Your task to perform on an android device: Clear all items from cart on costco. Add "macbook air" to the cart on costco Image 0: 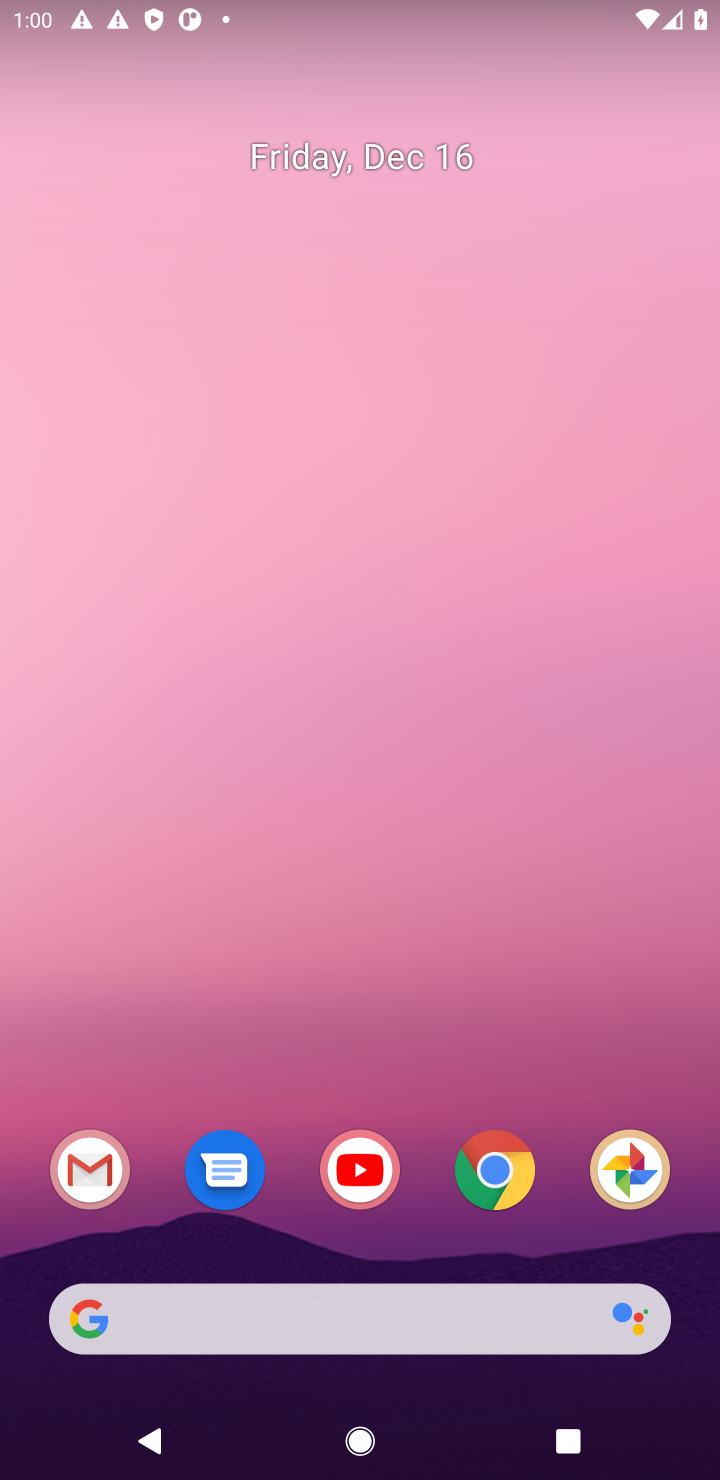
Step 0: click (510, 1173)
Your task to perform on an android device: Clear all items from cart on costco. Add "macbook air" to the cart on costco Image 1: 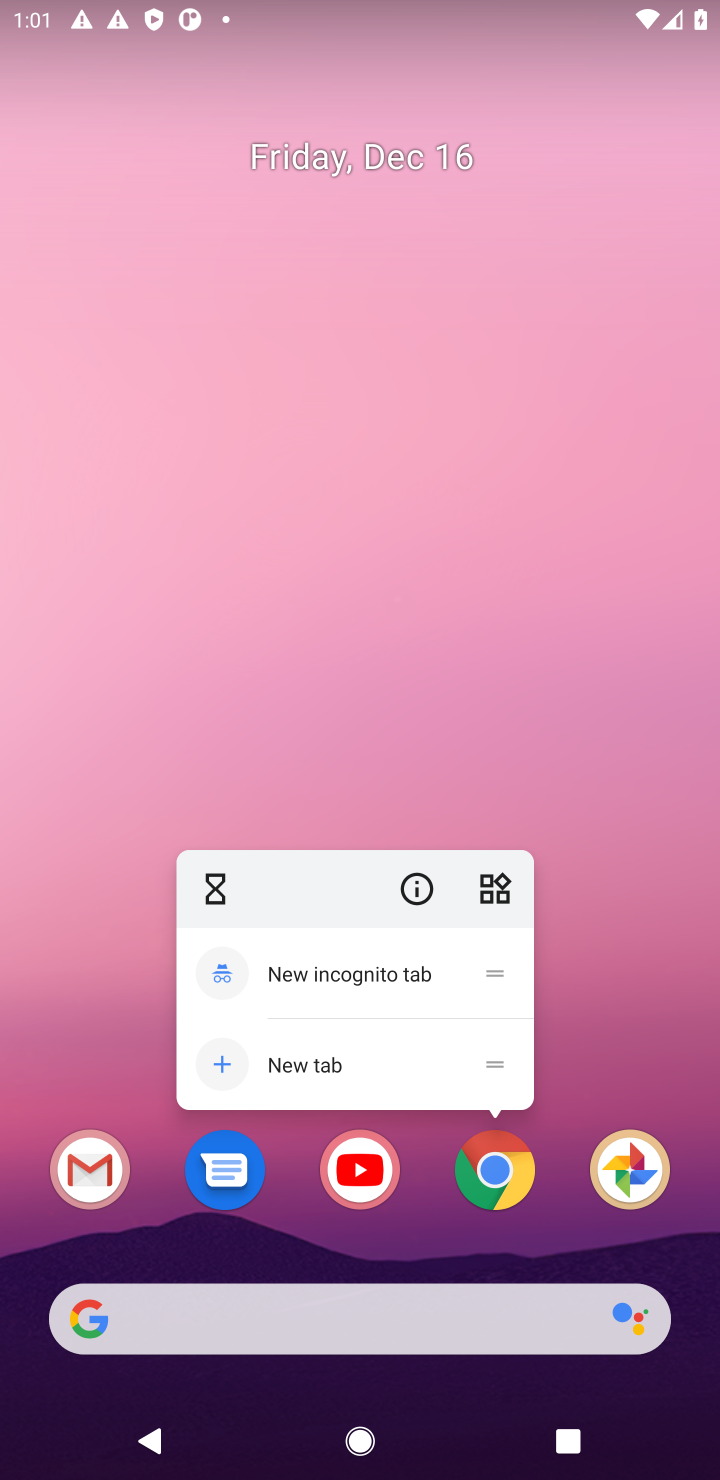
Step 1: click (502, 1177)
Your task to perform on an android device: Clear all items from cart on costco. Add "macbook air" to the cart on costco Image 2: 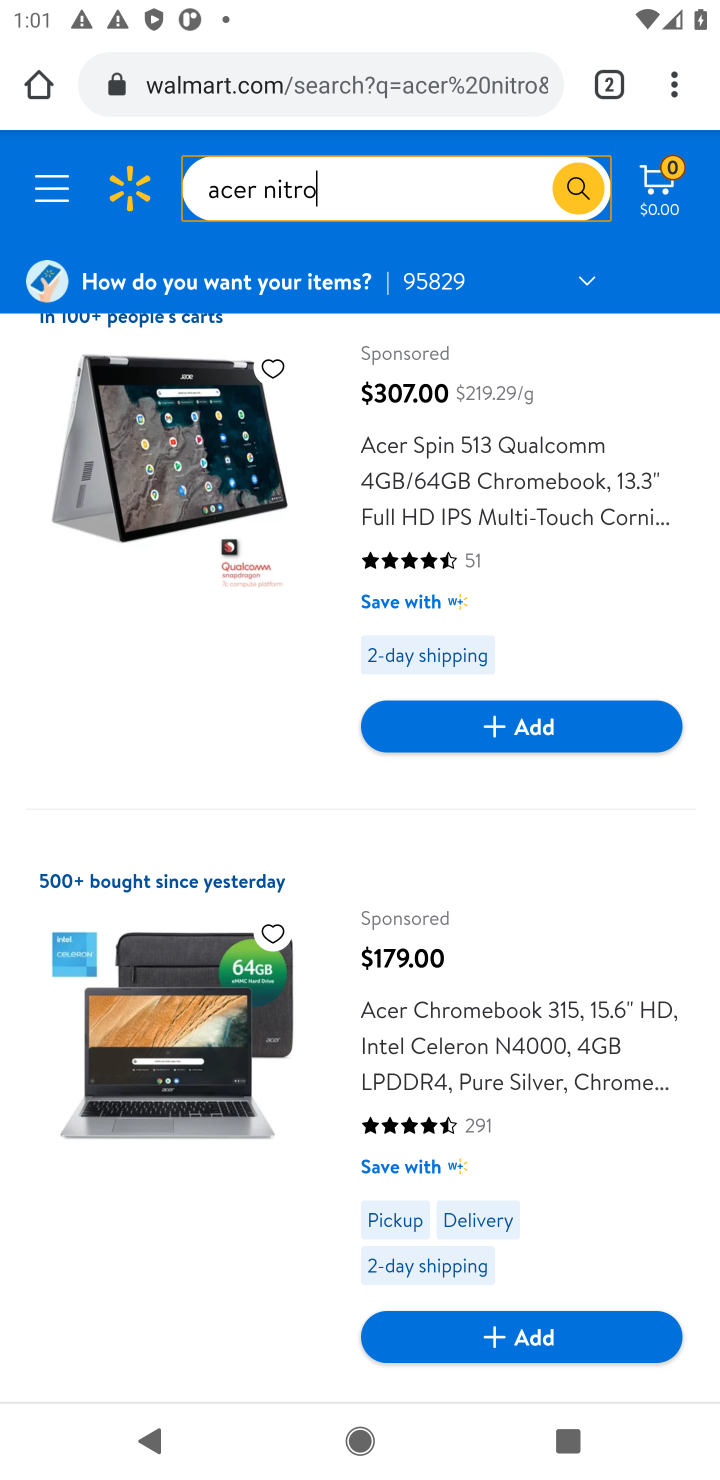
Step 2: click (263, 89)
Your task to perform on an android device: Clear all items from cart on costco. Add "macbook air" to the cart on costco Image 3: 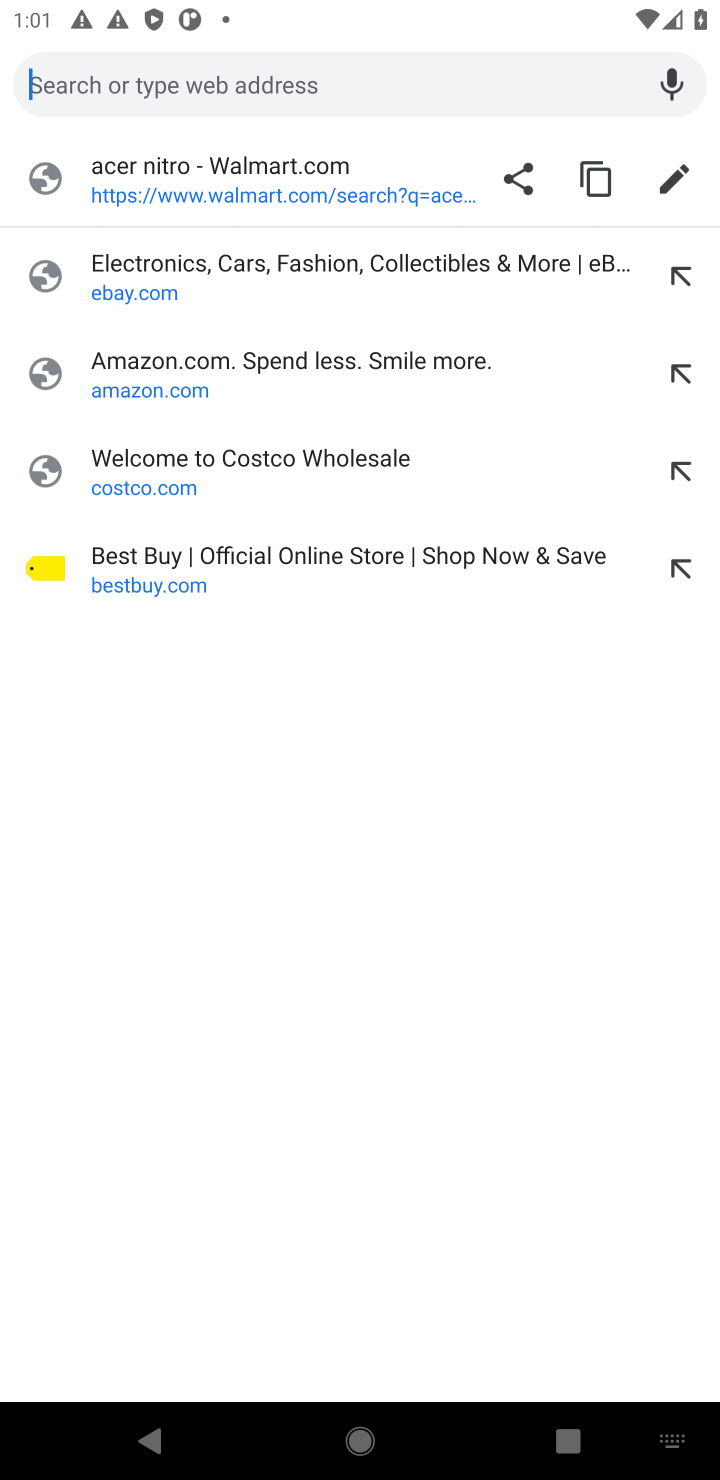
Step 3: click (89, 471)
Your task to perform on an android device: Clear all items from cart on costco. Add "macbook air" to the cart on costco Image 4: 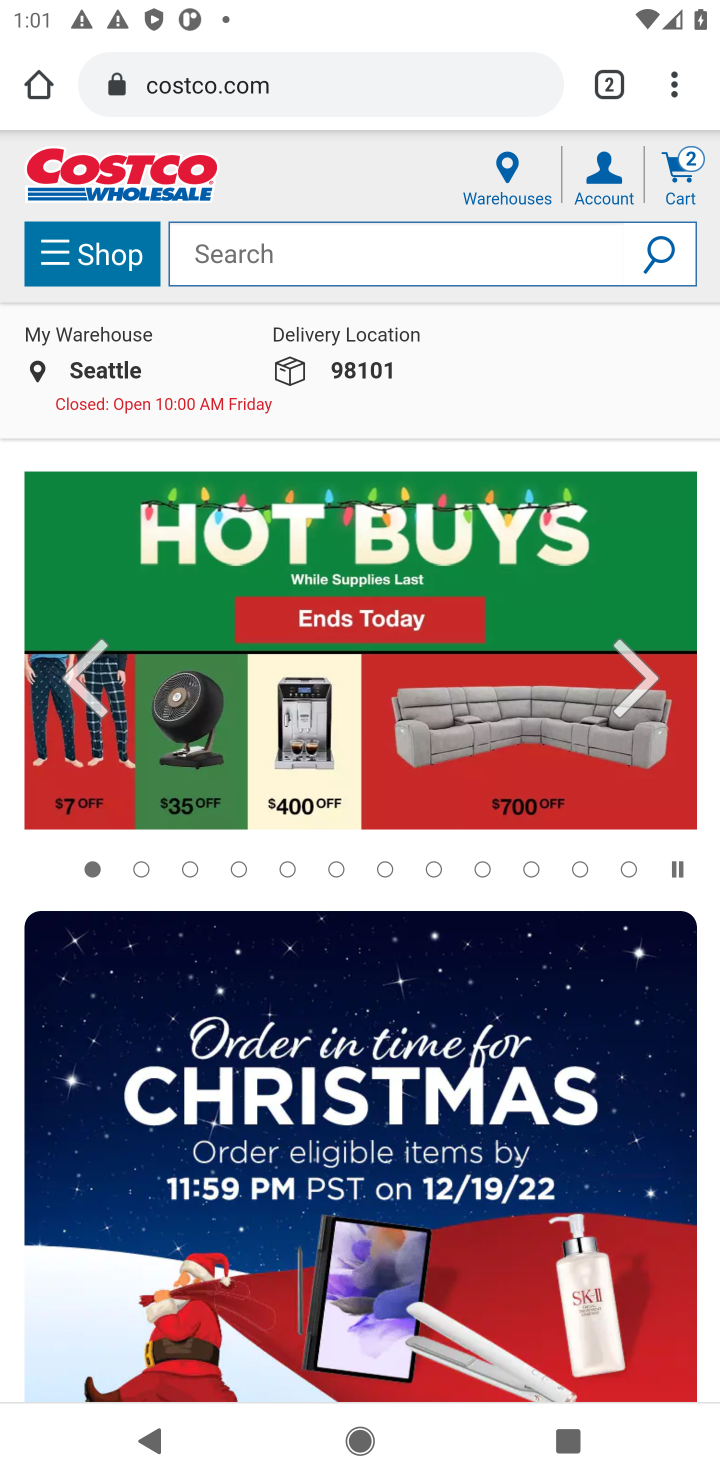
Step 4: click (666, 166)
Your task to perform on an android device: Clear all items from cart on costco. Add "macbook air" to the cart on costco Image 5: 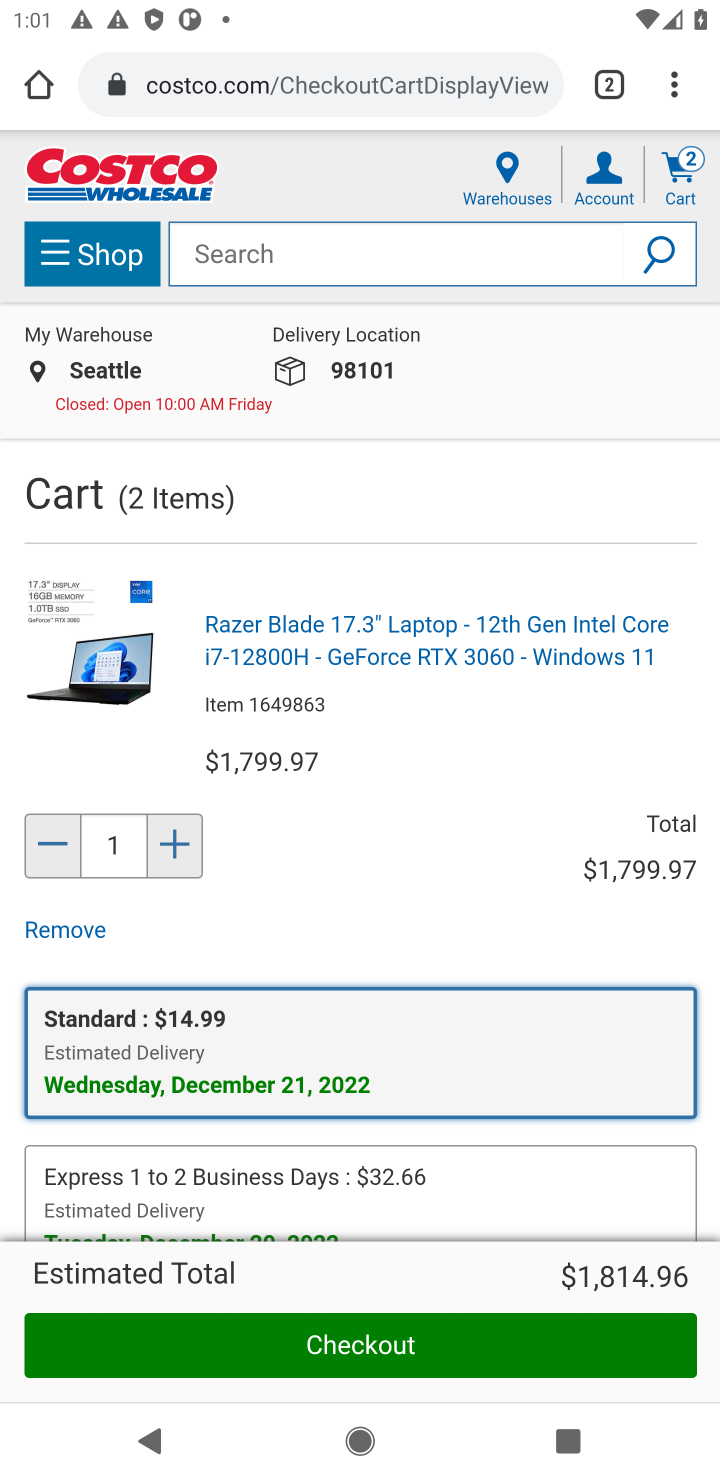
Step 5: drag from (298, 1037) to (315, 436)
Your task to perform on an android device: Clear all items from cart on costco. Add "macbook air" to the cart on costco Image 6: 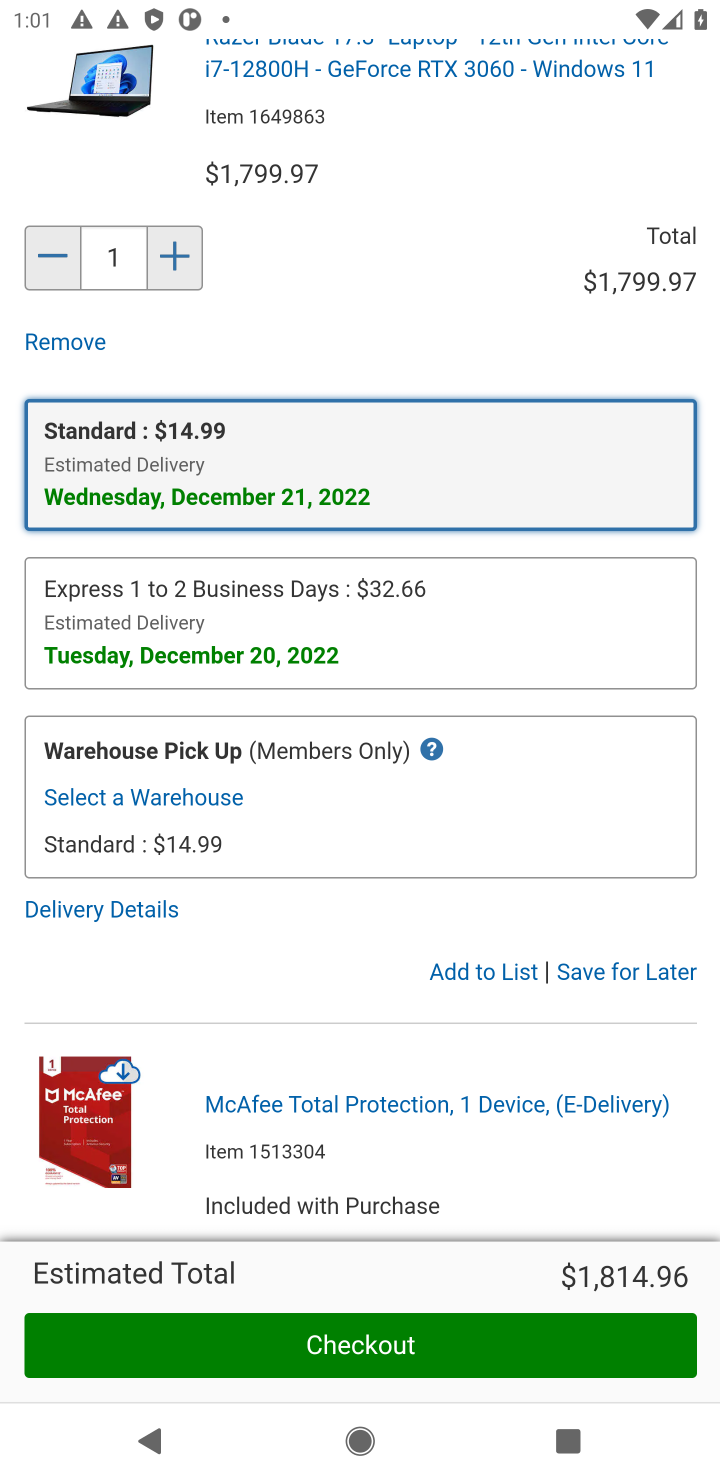
Step 6: click (602, 974)
Your task to perform on an android device: Clear all items from cart on costco. Add "macbook air" to the cart on costco Image 7: 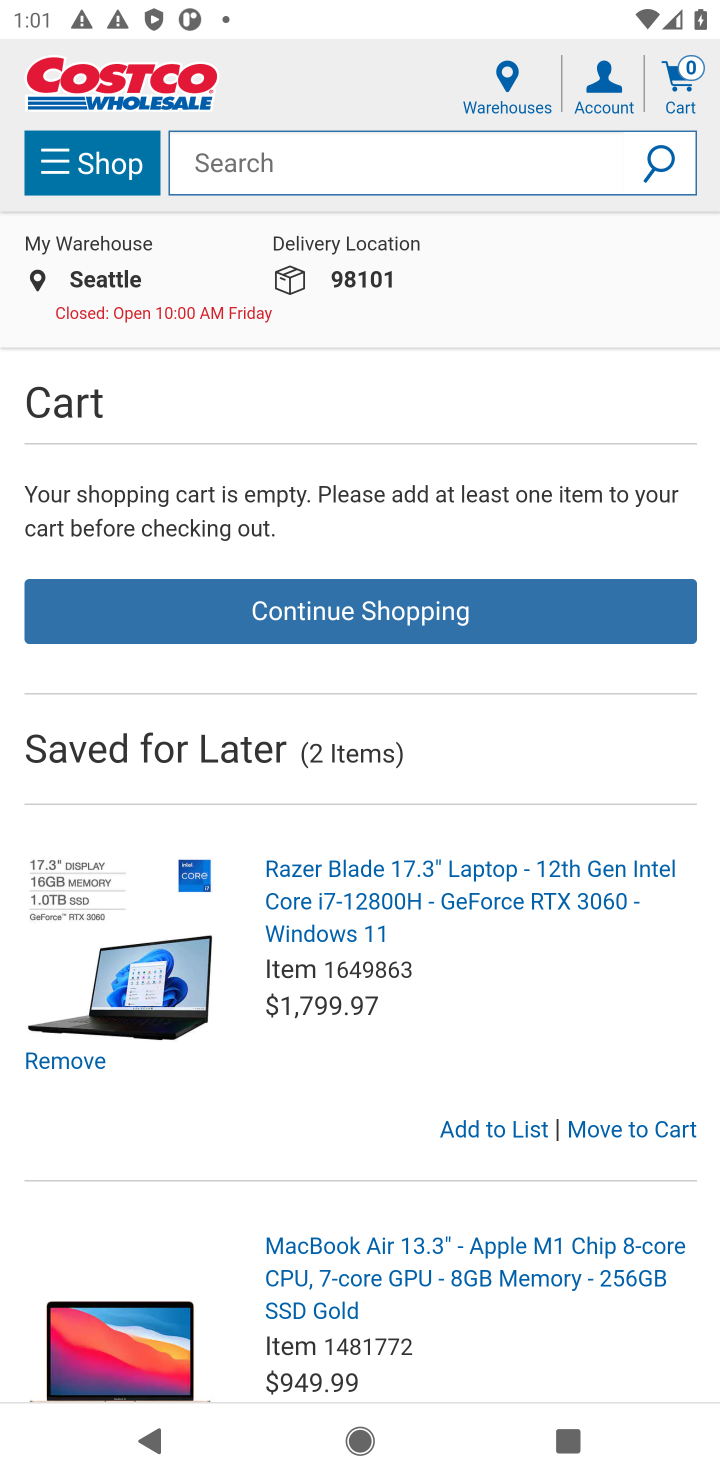
Step 7: click (272, 144)
Your task to perform on an android device: Clear all items from cart on costco. Add "macbook air" to the cart on costco Image 8: 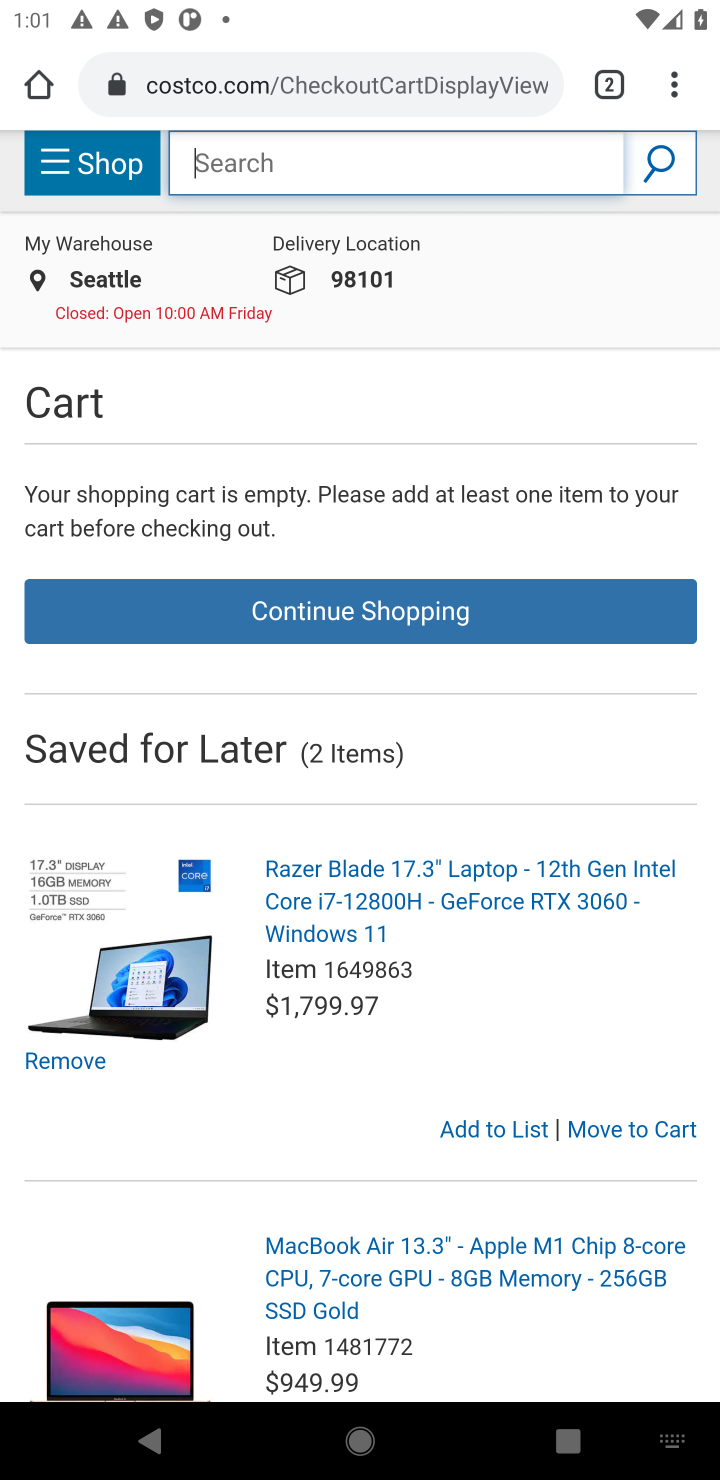
Step 8: type "macbook air"
Your task to perform on an android device: Clear all items from cart on costco. Add "macbook air" to the cart on costco Image 9: 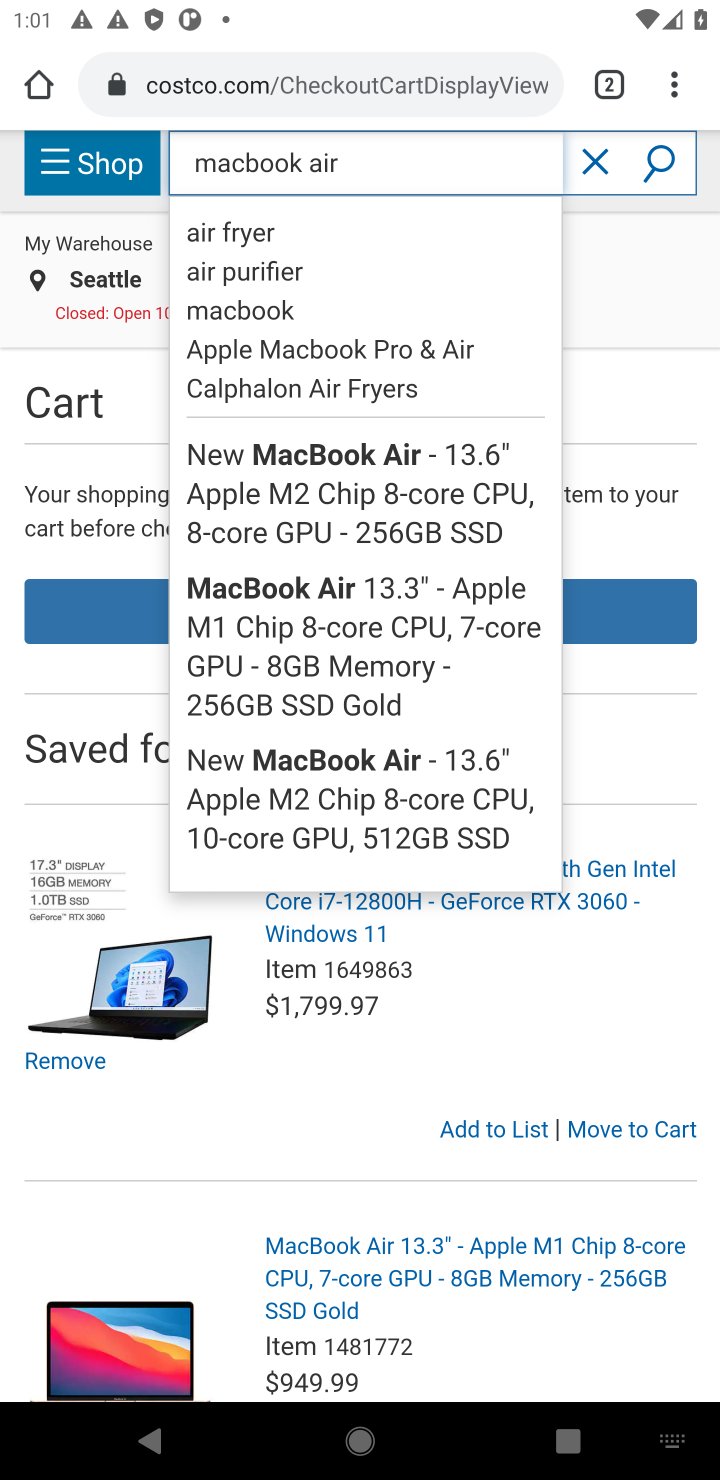
Step 9: click (655, 158)
Your task to perform on an android device: Clear all items from cart on costco. Add "macbook air" to the cart on costco Image 10: 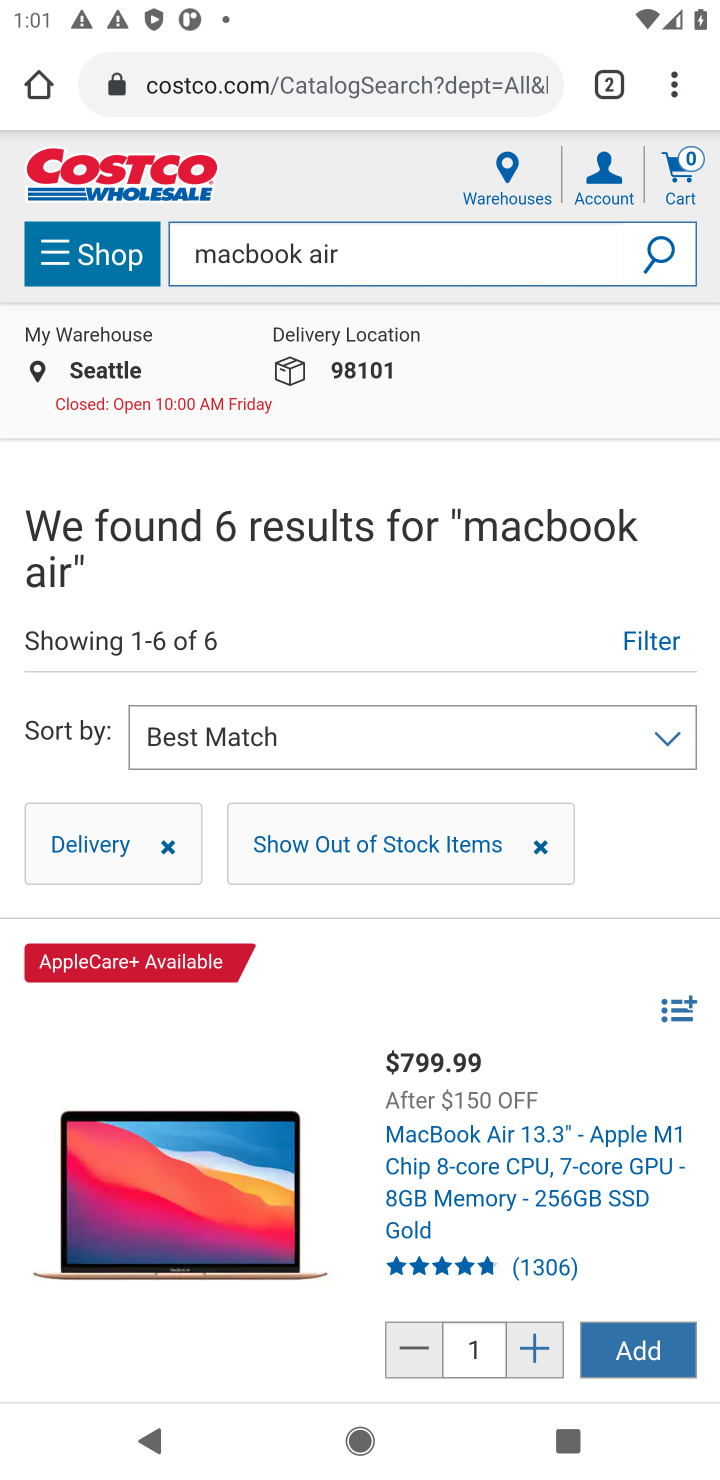
Step 10: drag from (273, 930) to (265, 574)
Your task to perform on an android device: Clear all items from cart on costco. Add "macbook air" to the cart on costco Image 11: 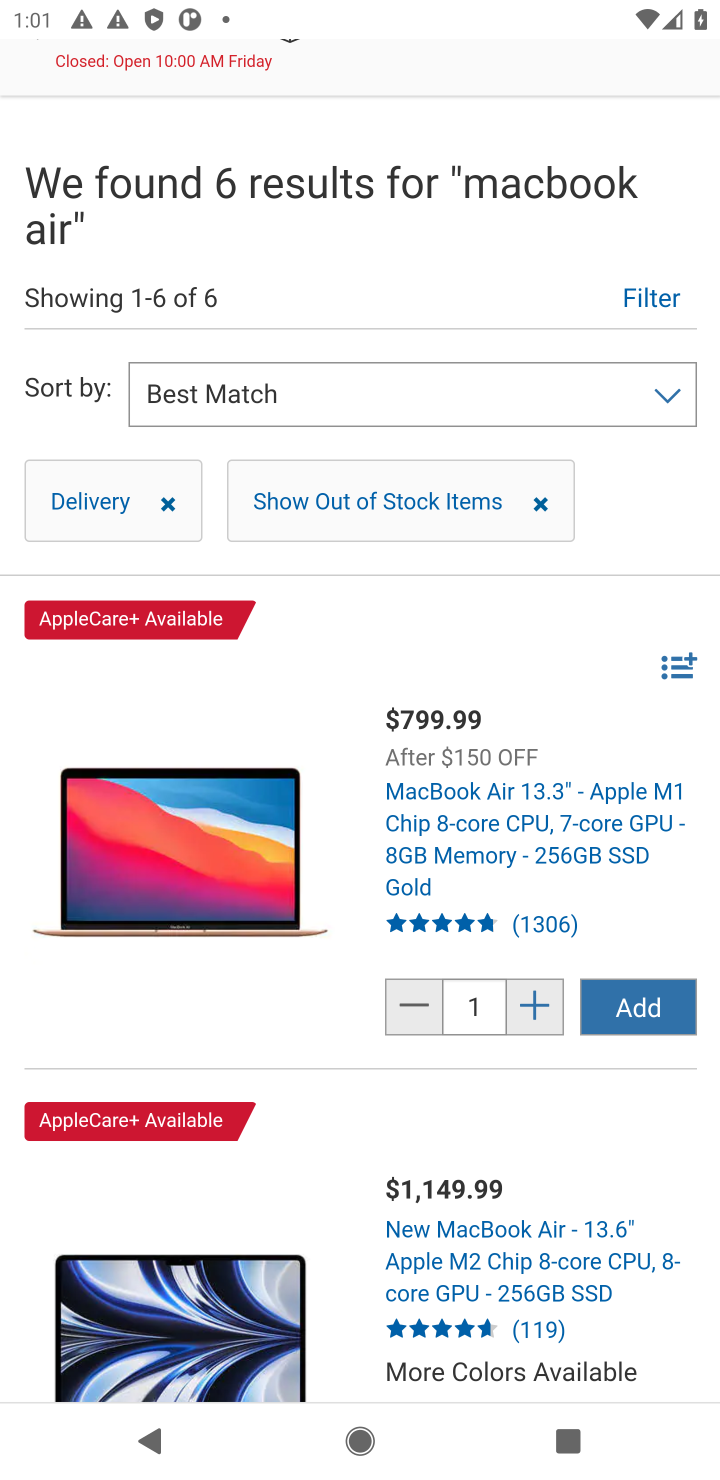
Step 11: click (649, 1006)
Your task to perform on an android device: Clear all items from cart on costco. Add "macbook air" to the cart on costco Image 12: 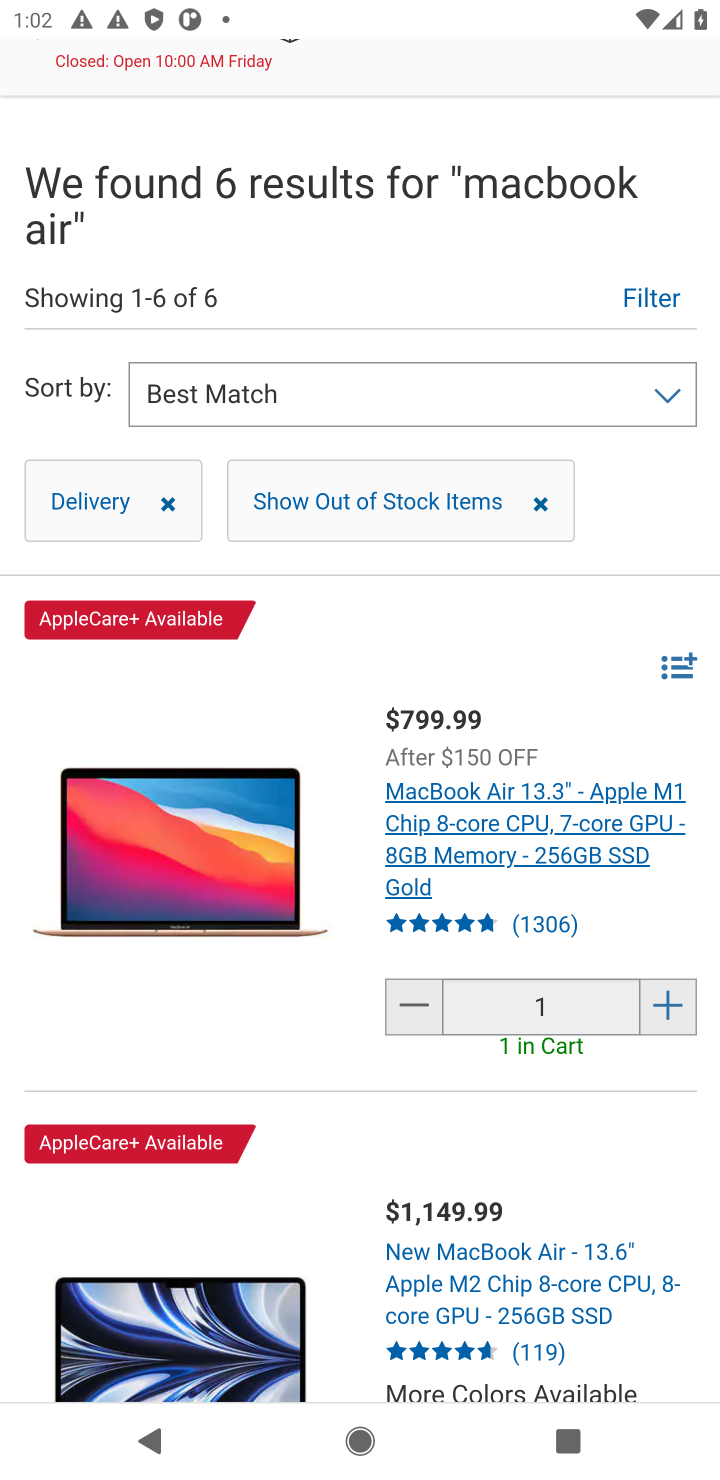
Step 12: task complete